Your task to perform on an android device: What's the weather going to be tomorrow? Image 0: 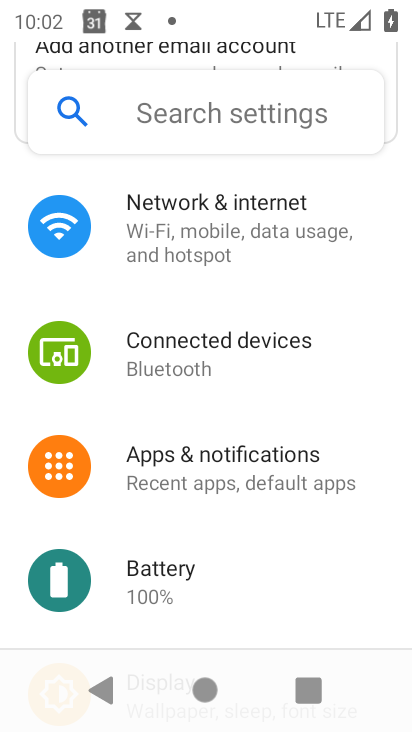
Step 0: press home button
Your task to perform on an android device: What's the weather going to be tomorrow? Image 1: 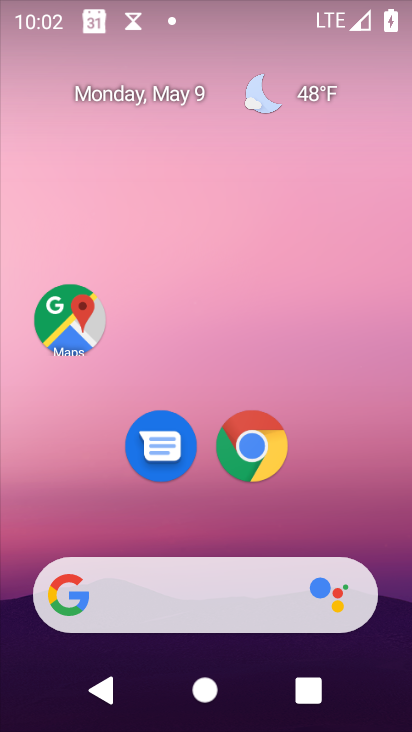
Step 1: click (290, 95)
Your task to perform on an android device: What's the weather going to be tomorrow? Image 2: 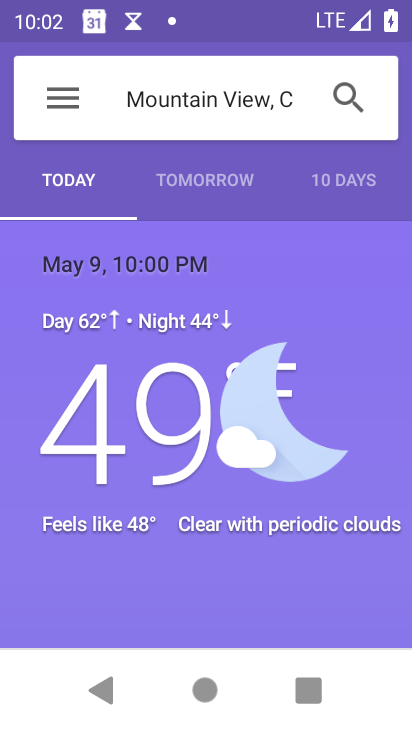
Step 2: click (237, 174)
Your task to perform on an android device: What's the weather going to be tomorrow? Image 3: 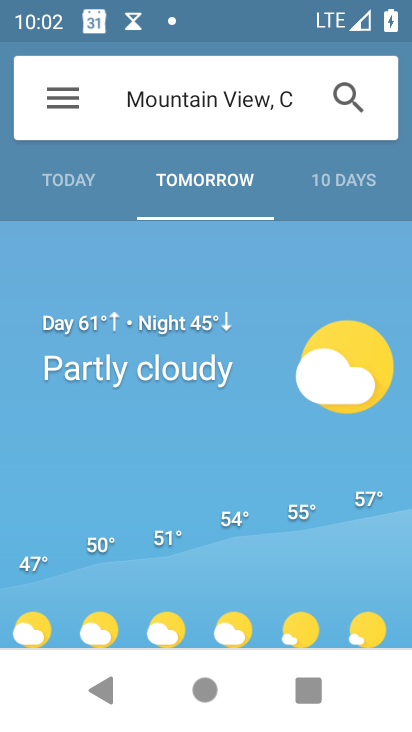
Step 3: task complete